Your task to perform on an android device: set default search engine in the chrome app Image 0: 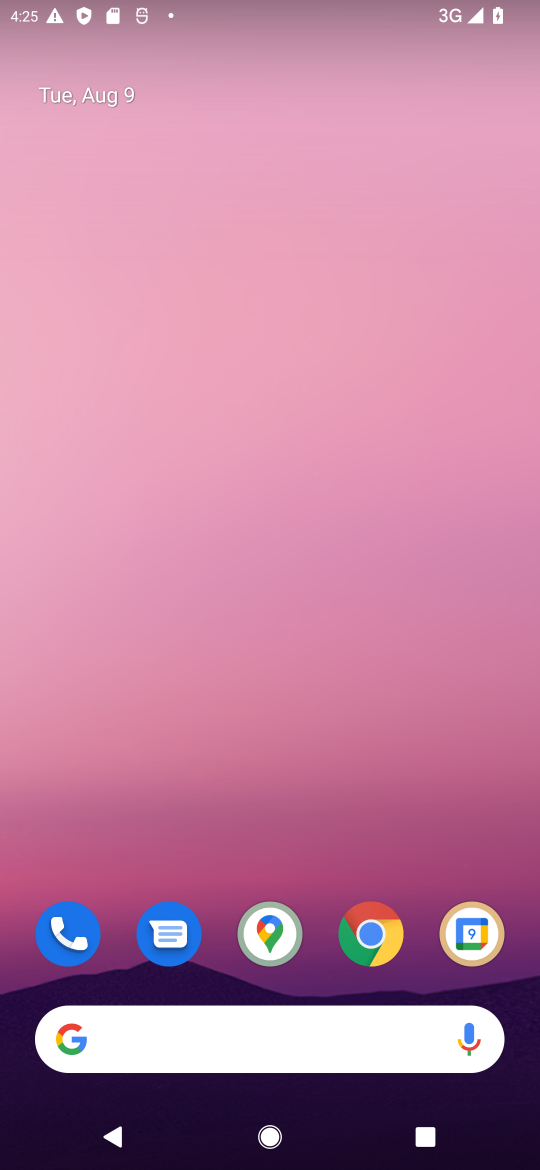
Step 0: click (352, 957)
Your task to perform on an android device: set default search engine in the chrome app Image 1: 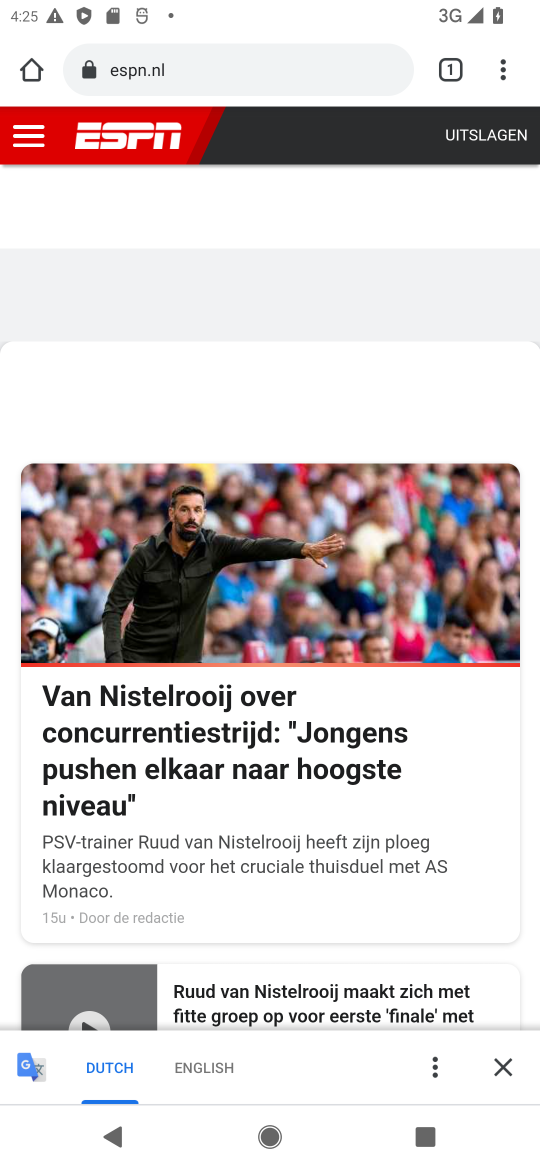
Step 1: click (507, 69)
Your task to perform on an android device: set default search engine in the chrome app Image 2: 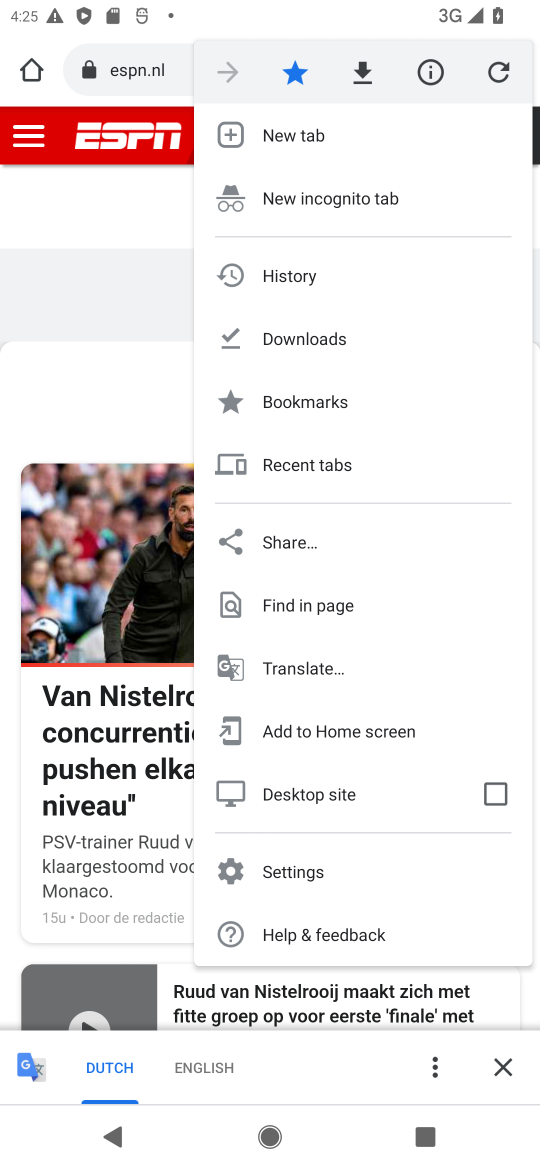
Step 2: click (355, 867)
Your task to perform on an android device: set default search engine in the chrome app Image 3: 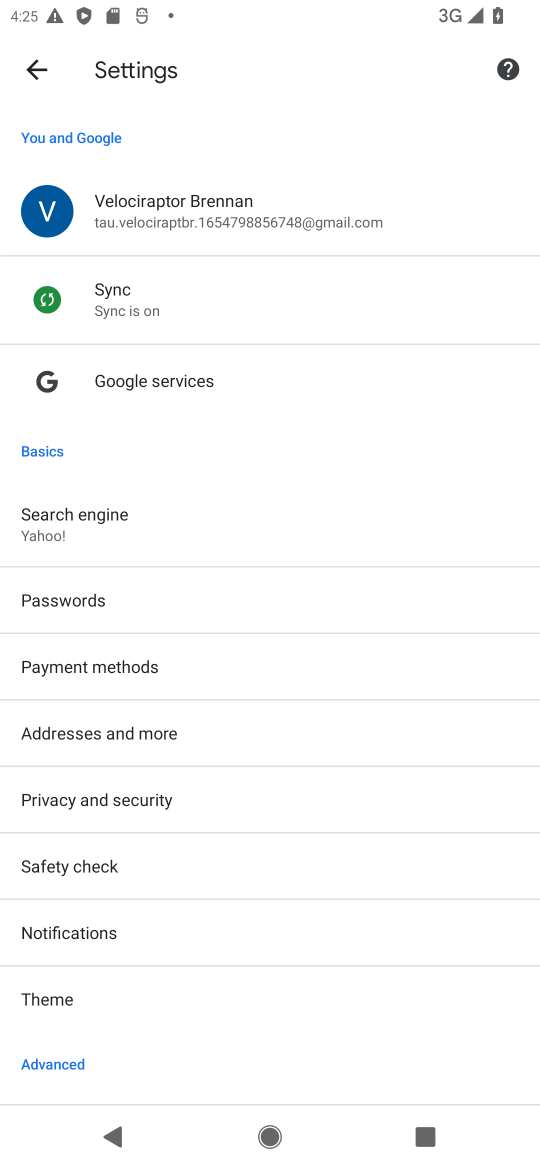
Step 3: task complete